Your task to perform on an android device: delete a single message in the gmail app Image 0: 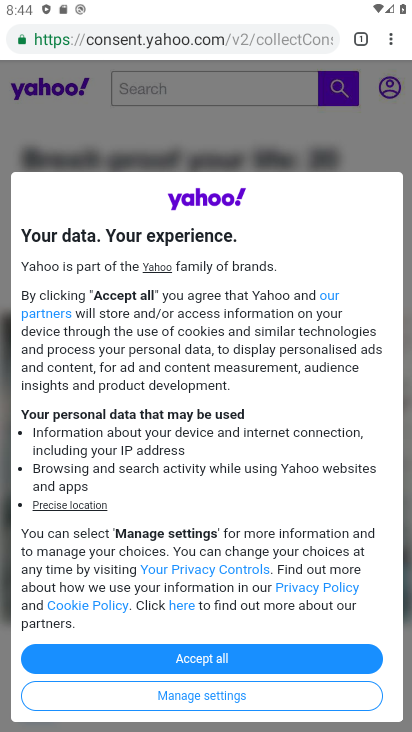
Step 0: press back button
Your task to perform on an android device: delete a single message in the gmail app Image 1: 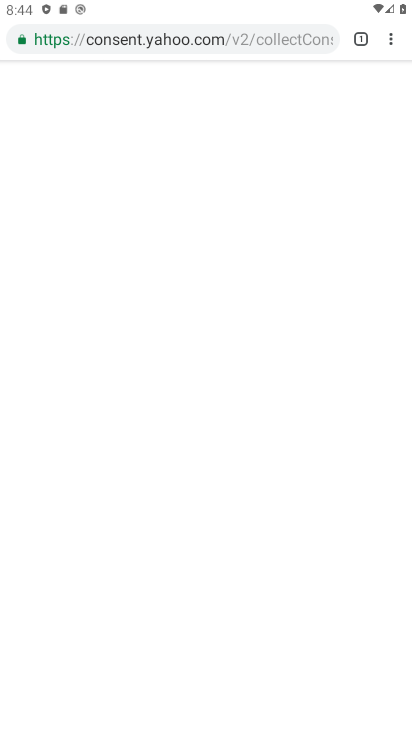
Step 1: press back button
Your task to perform on an android device: delete a single message in the gmail app Image 2: 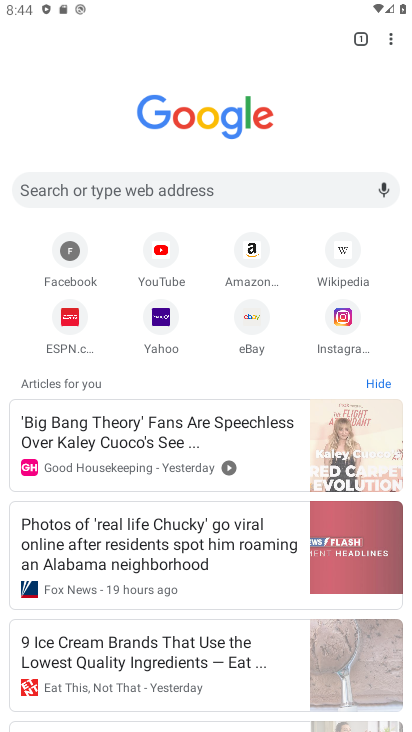
Step 2: press back button
Your task to perform on an android device: delete a single message in the gmail app Image 3: 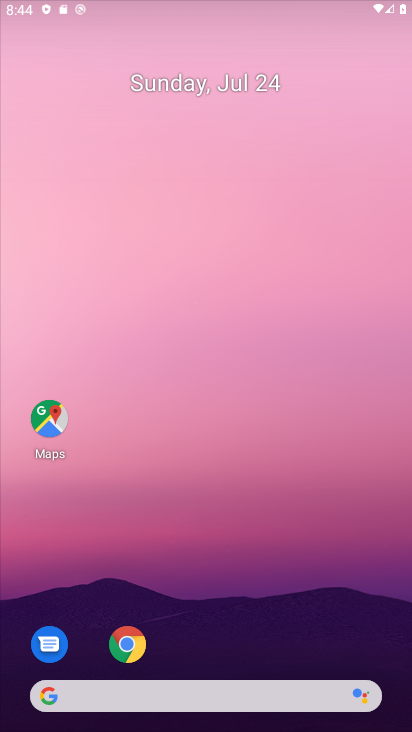
Step 3: drag from (234, 482) to (289, 90)
Your task to perform on an android device: delete a single message in the gmail app Image 4: 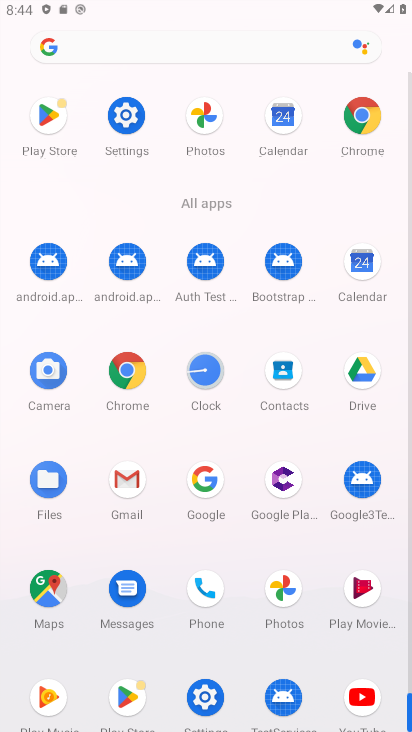
Step 4: drag from (204, 564) to (117, 28)
Your task to perform on an android device: delete a single message in the gmail app Image 5: 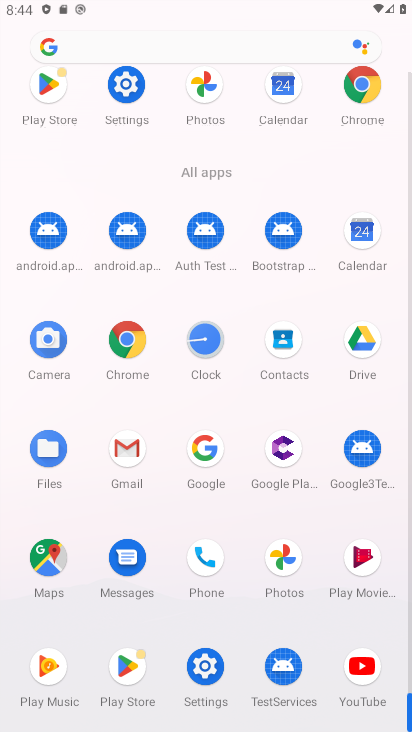
Step 5: click (133, 461)
Your task to perform on an android device: delete a single message in the gmail app Image 6: 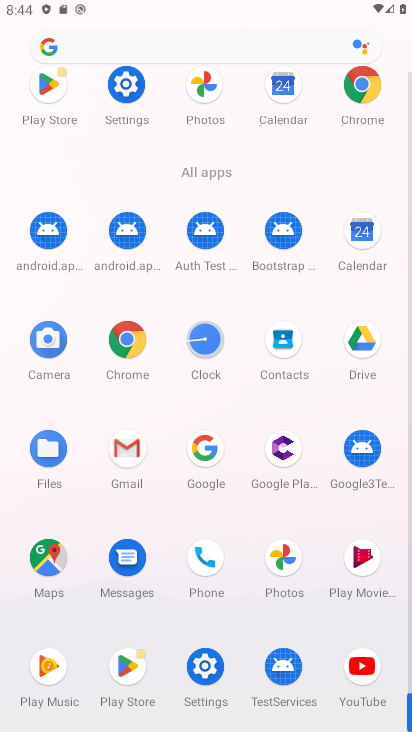
Step 6: click (130, 457)
Your task to perform on an android device: delete a single message in the gmail app Image 7: 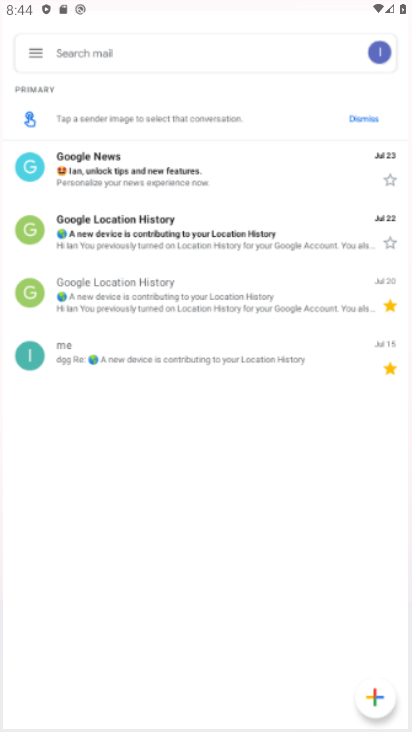
Step 7: click (130, 457)
Your task to perform on an android device: delete a single message in the gmail app Image 8: 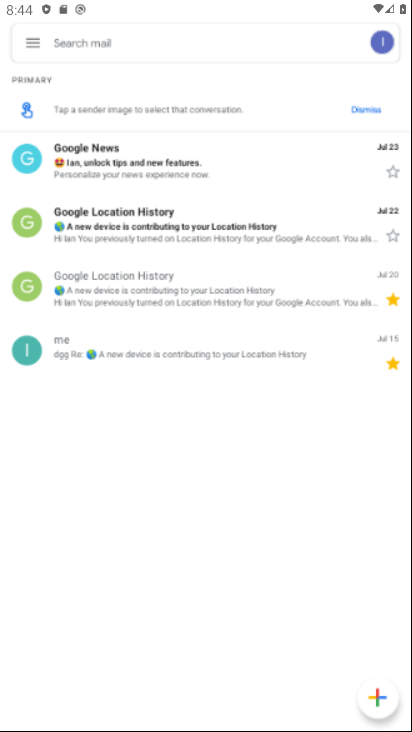
Step 8: click (131, 458)
Your task to perform on an android device: delete a single message in the gmail app Image 9: 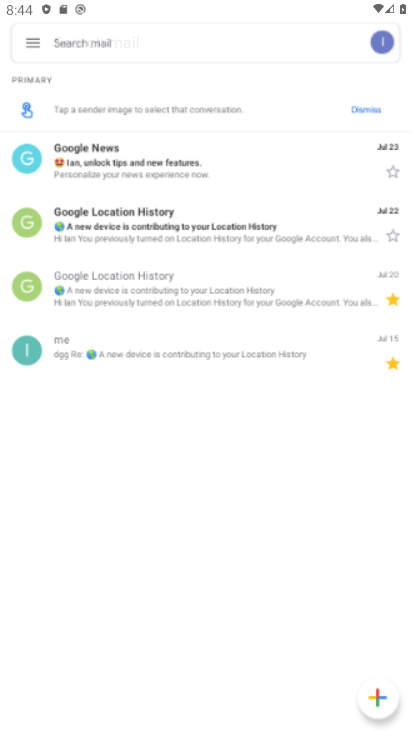
Step 9: click (131, 461)
Your task to perform on an android device: delete a single message in the gmail app Image 10: 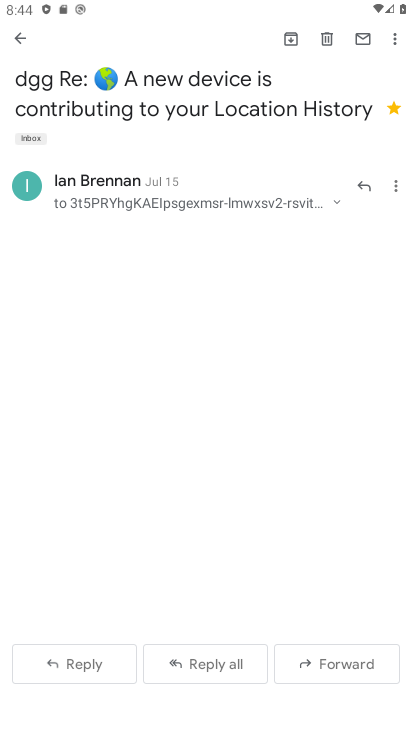
Step 10: click (19, 32)
Your task to perform on an android device: delete a single message in the gmail app Image 11: 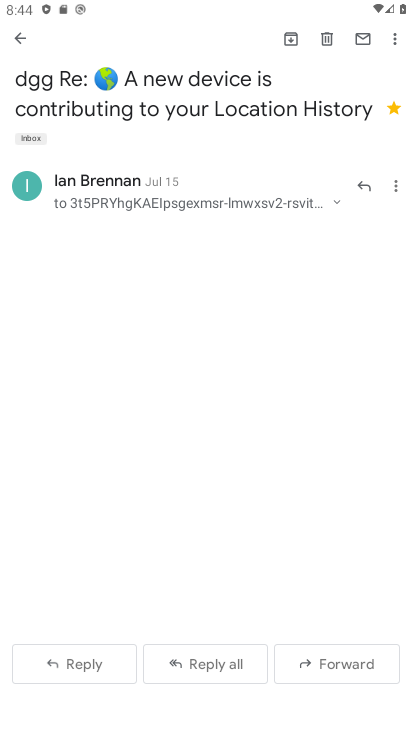
Step 11: click (18, 32)
Your task to perform on an android device: delete a single message in the gmail app Image 12: 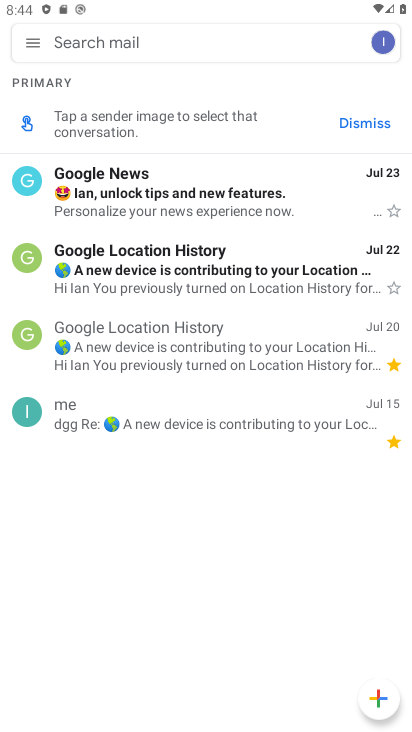
Step 12: click (127, 190)
Your task to perform on an android device: delete a single message in the gmail app Image 13: 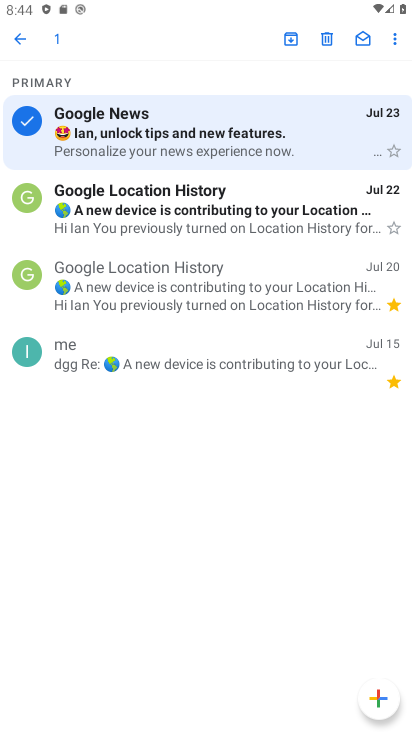
Step 13: click (321, 42)
Your task to perform on an android device: delete a single message in the gmail app Image 14: 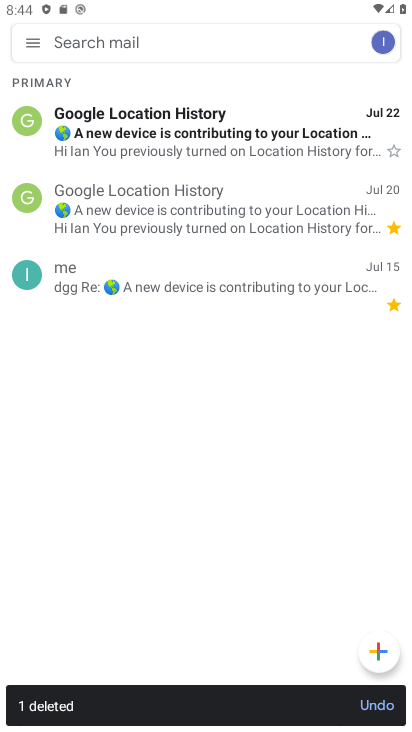
Step 14: task complete